Your task to perform on an android device: turn off sleep mode Image 0: 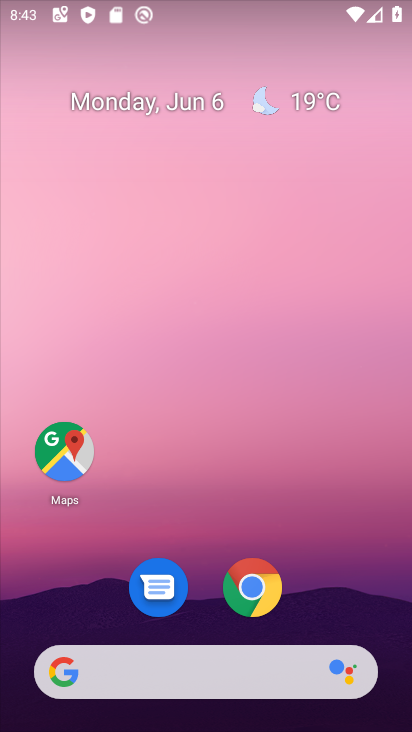
Step 0: drag from (72, 619) to (199, 216)
Your task to perform on an android device: turn off sleep mode Image 1: 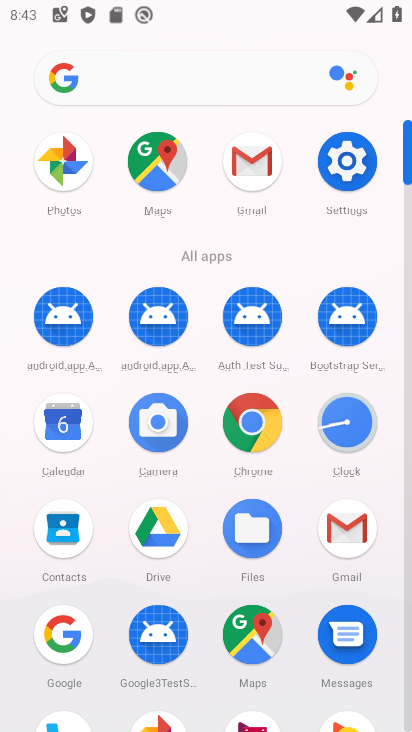
Step 1: drag from (194, 652) to (282, 353)
Your task to perform on an android device: turn off sleep mode Image 2: 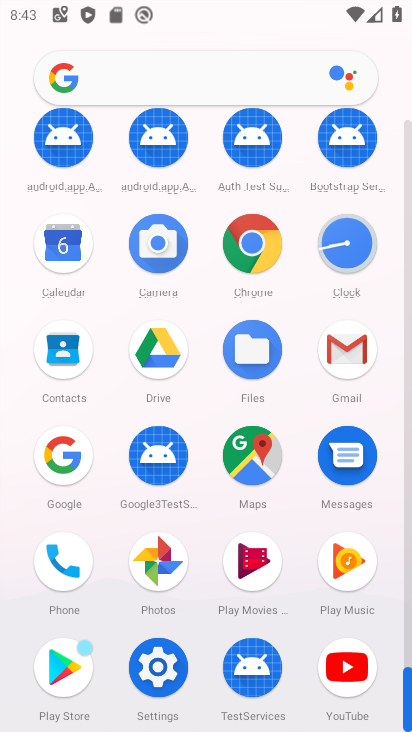
Step 2: click (150, 680)
Your task to perform on an android device: turn off sleep mode Image 3: 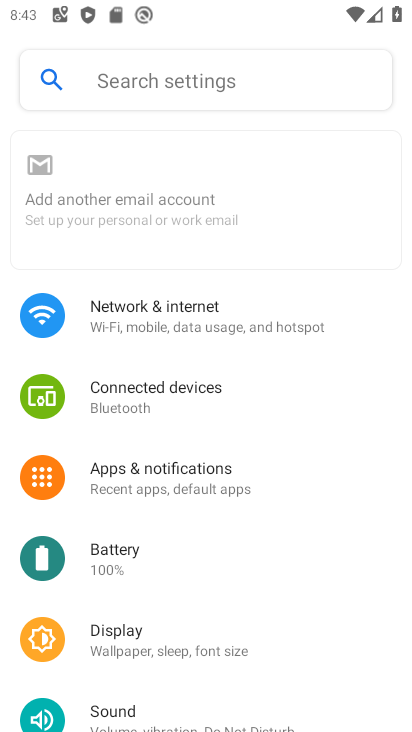
Step 3: drag from (153, 675) to (271, 366)
Your task to perform on an android device: turn off sleep mode Image 4: 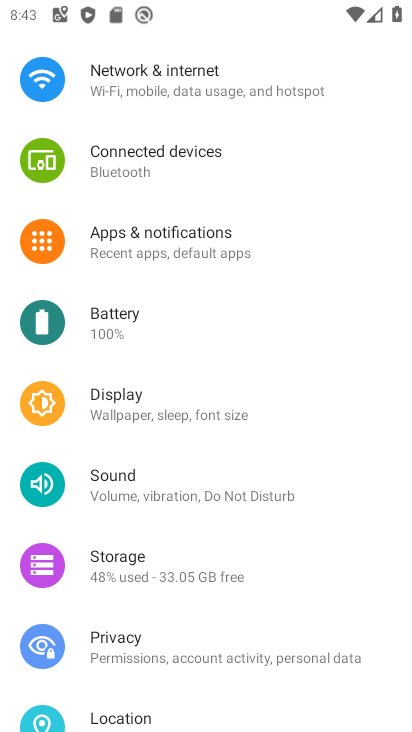
Step 4: click (158, 400)
Your task to perform on an android device: turn off sleep mode Image 5: 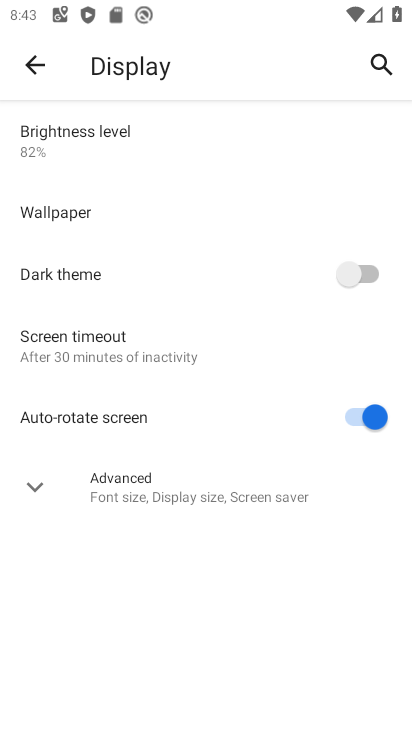
Step 5: click (191, 480)
Your task to perform on an android device: turn off sleep mode Image 6: 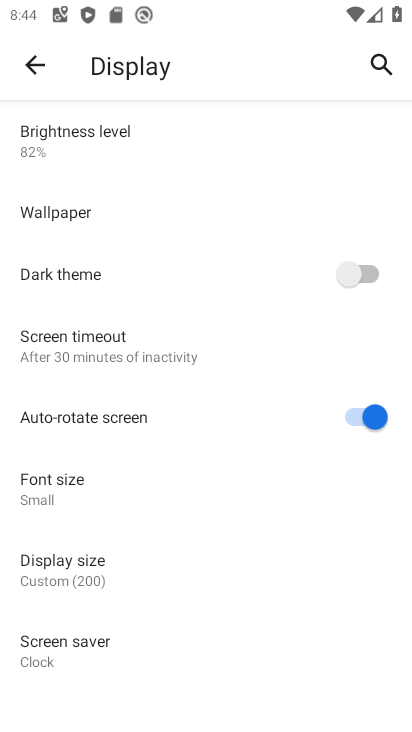
Step 6: task complete